Your task to perform on an android device: check android version Image 0: 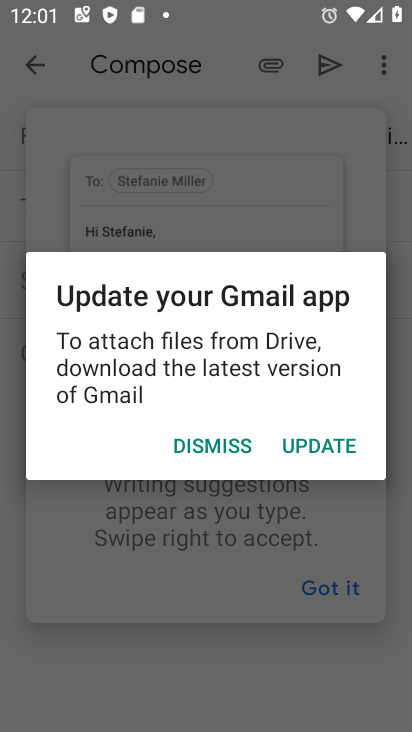
Step 0: press home button
Your task to perform on an android device: check android version Image 1: 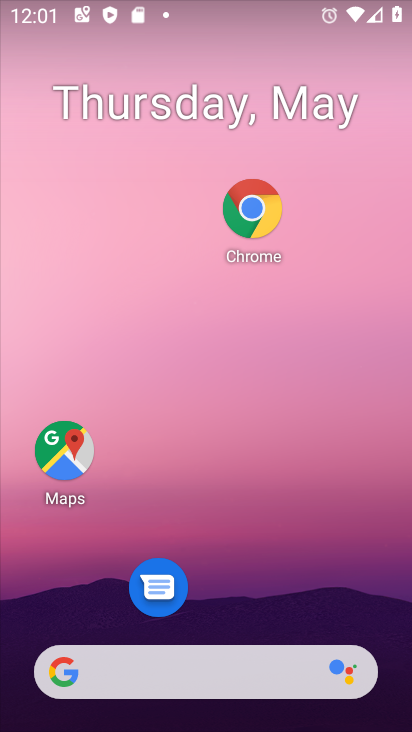
Step 1: drag from (212, 585) to (277, 28)
Your task to perform on an android device: check android version Image 2: 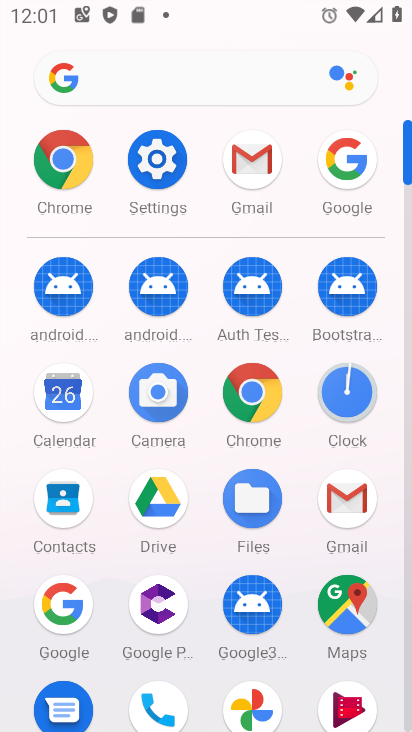
Step 2: click (167, 171)
Your task to perform on an android device: check android version Image 3: 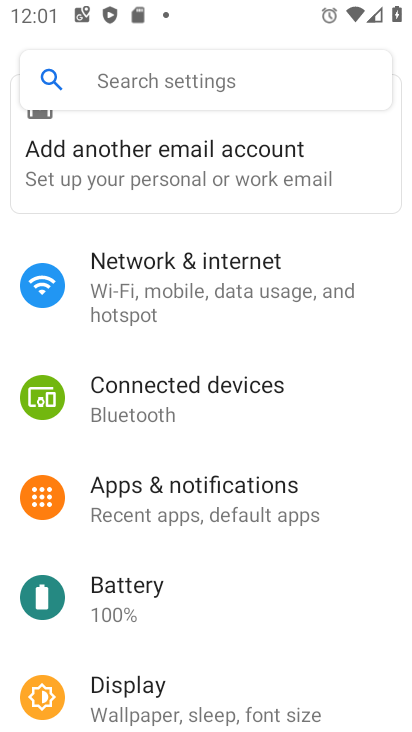
Step 3: drag from (167, 656) to (218, 257)
Your task to perform on an android device: check android version Image 4: 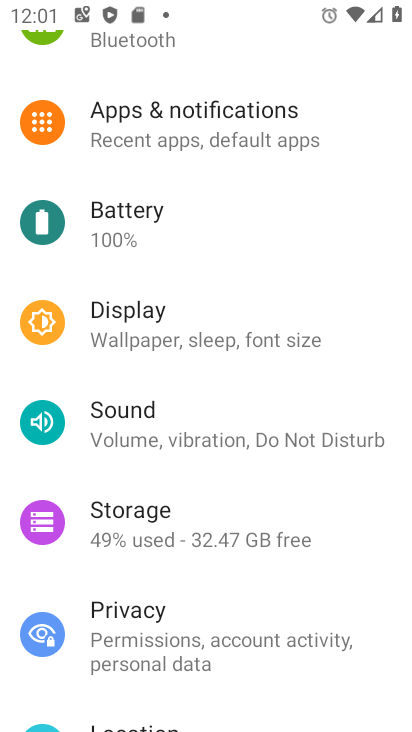
Step 4: drag from (148, 638) to (228, 283)
Your task to perform on an android device: check android version Image 5: 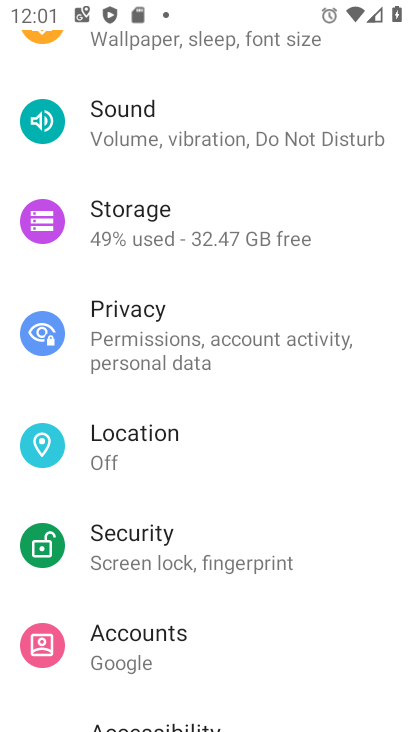
Step 5: click (192, 325)
Your task to perform on an android device: check android version Image 6: 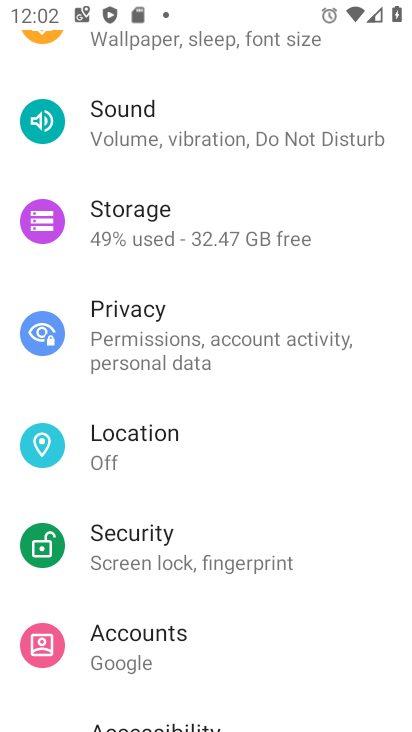
Step 6: drag from (176, 619) to (223, 145)
Your task to perform on an android device: check android version Image 7: 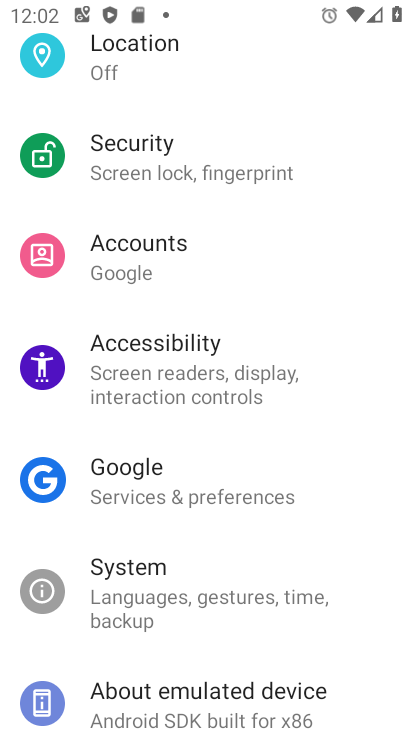
Step 7: click (169, 687)
Your task to perform on an android device: check android version Image 8: 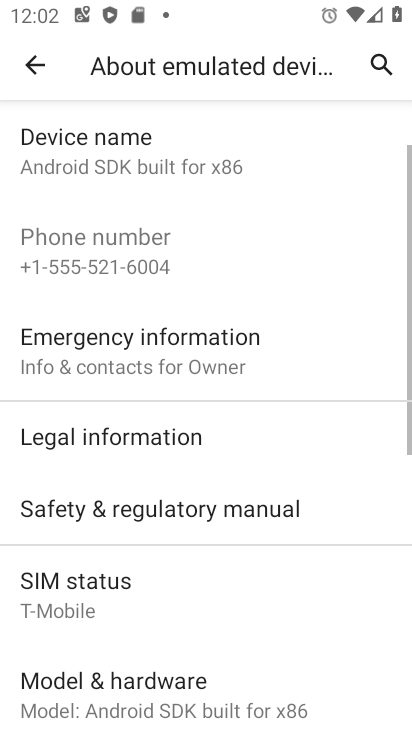
Step 8: task complete